Your task to perform on an android device: Do I have any events today? Image 0: 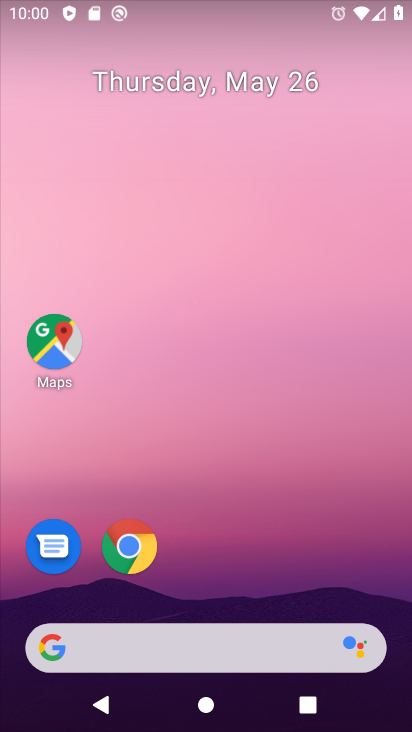
Step 0: drag from (263, 548) to (218, 123)
Your task to perform on an android device: Do I have any events today? Image 1: 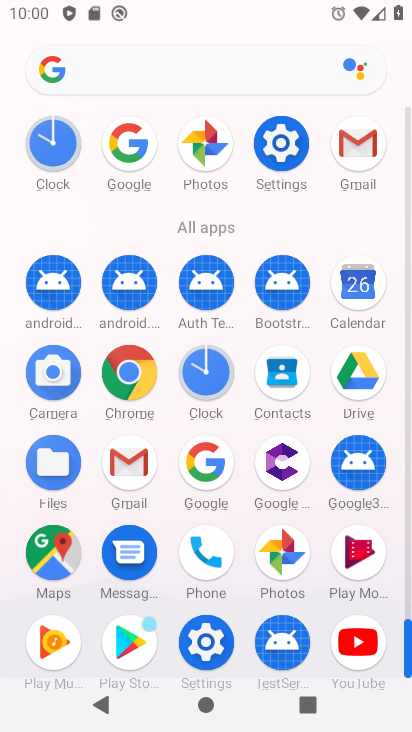
Step 1: click (360, 291)
Your task to perform on an android device: Do I have any events today? Image 2: 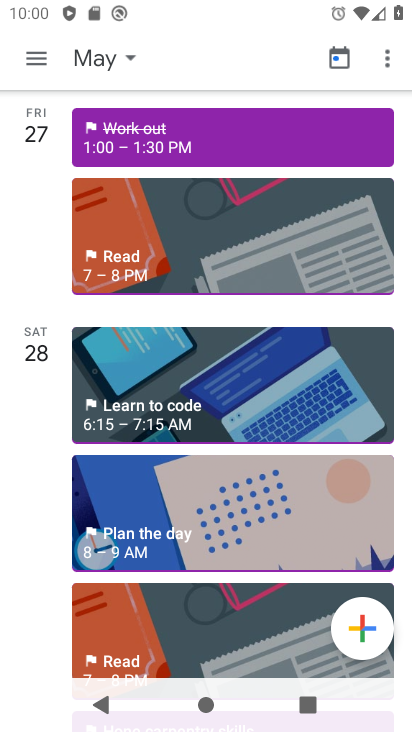
Step 2: click (340, 64)
Your task to perform on an android device: Do I have any events today? Image 3: 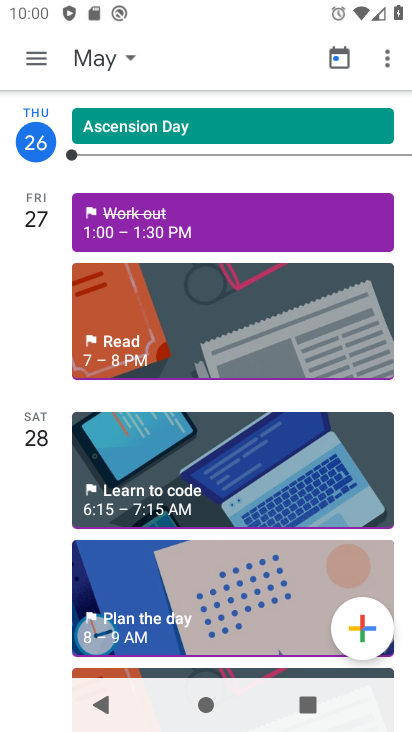
Step 3: click (127, 59)
Your task to perform on an android device: Do I have any events today? Image 4: 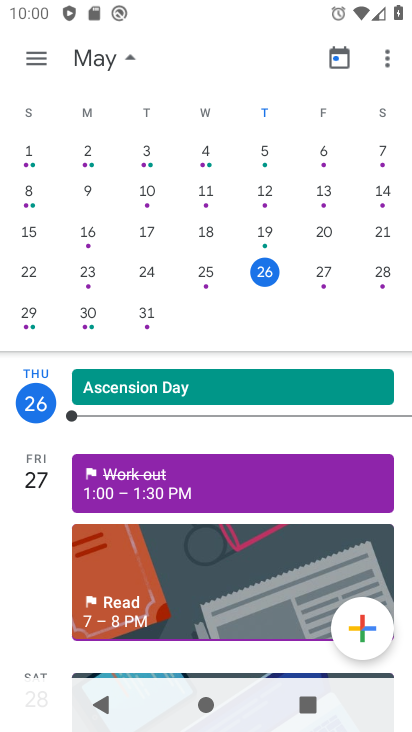
Step 4: click (262, 264)
Your task to perform on an android device: Do I have any events today? Image 5: 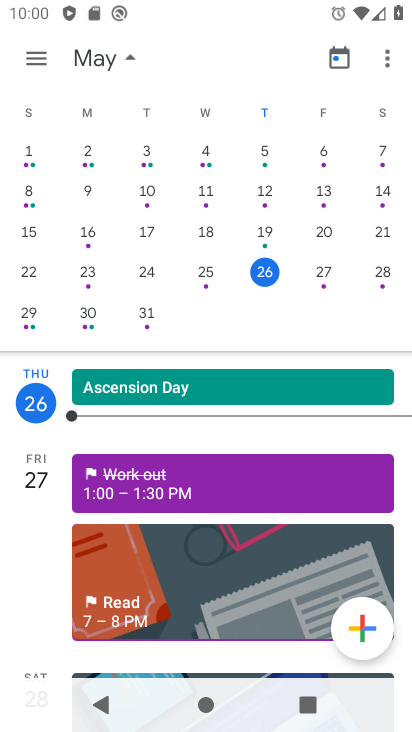
Step 5: click (24, 49)
Your task to perform on an android device: Do I have any events today? Image 6: 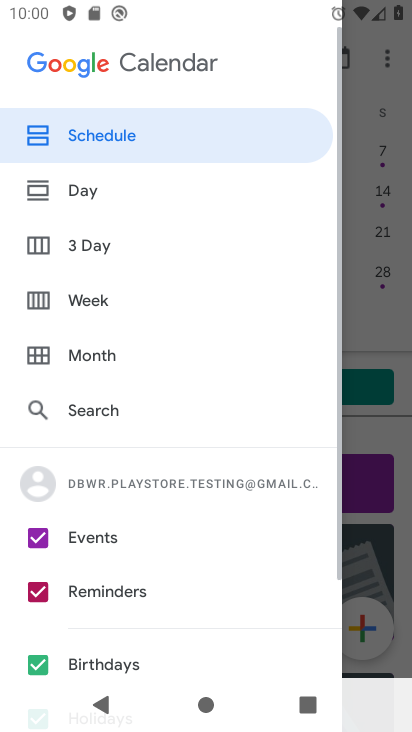
Step 6: click (83, 141)
Your task to perform on an android device: Do I have any events today? Image 7: 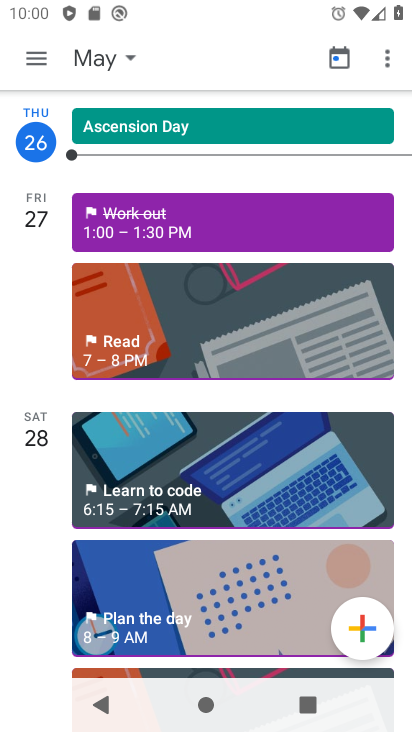
Step 7: task complete